Your task to perform on an android device: visit the assistant section in the google photos Image 0: 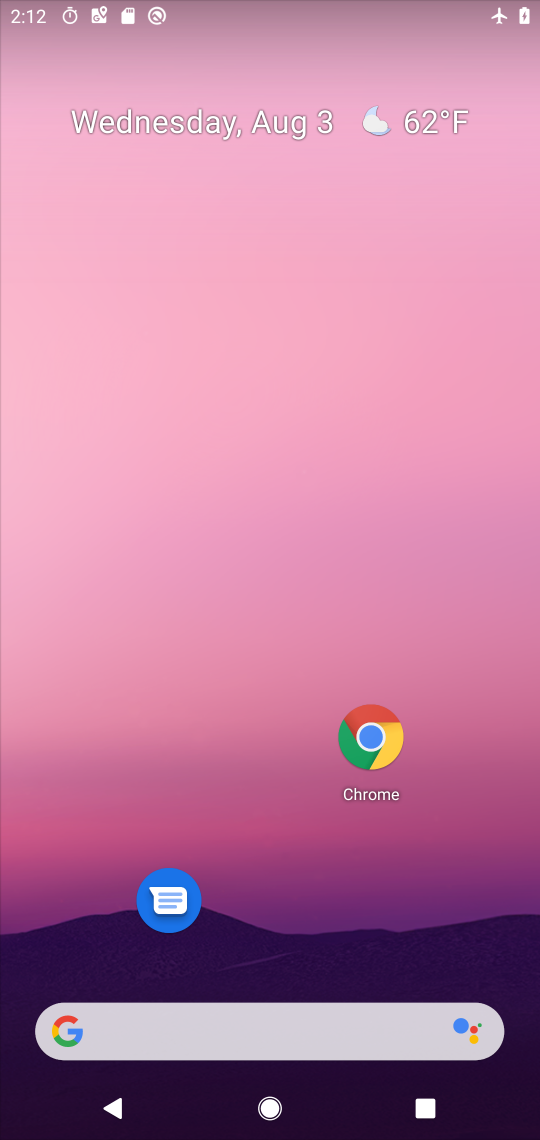
Step 0: drag from (268, 758) to (289, 90)
Your task to perform on an android device: visit the assistant section in the google photos Image 1: 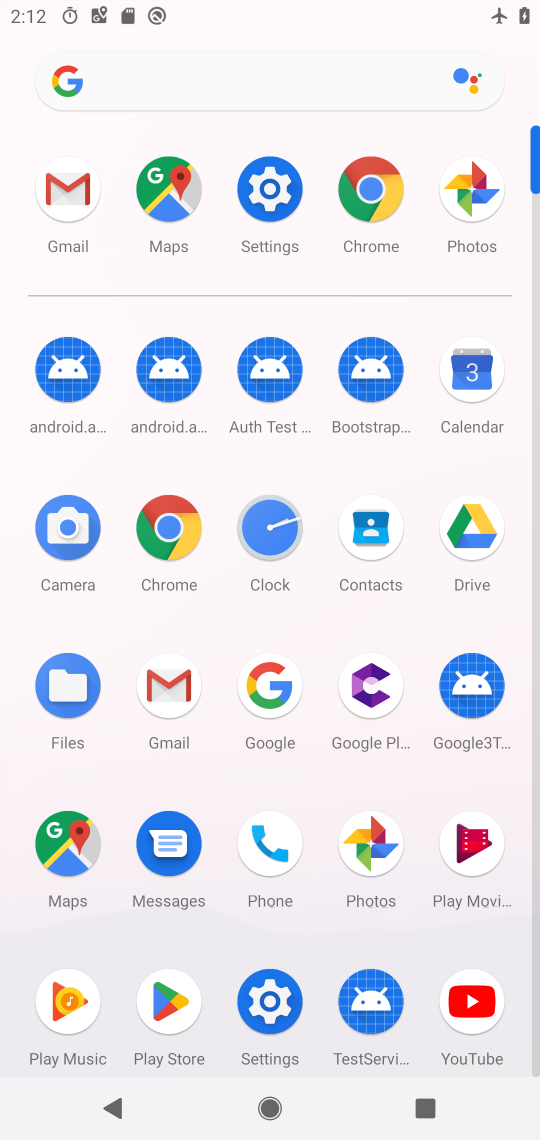
Step 1: click (481, 185)
Your task to perform on an android device: visit the assistant section in the google photos Image 2: 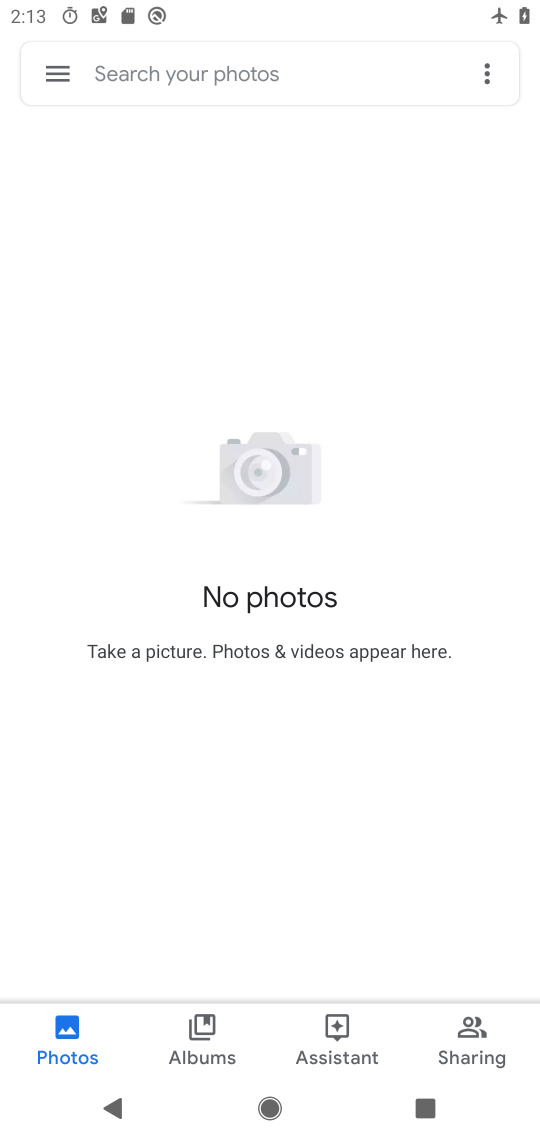
Step 2: click (331, 1041)
Your task to perform on an android device: visit the assistant section in the google photos Image 3: 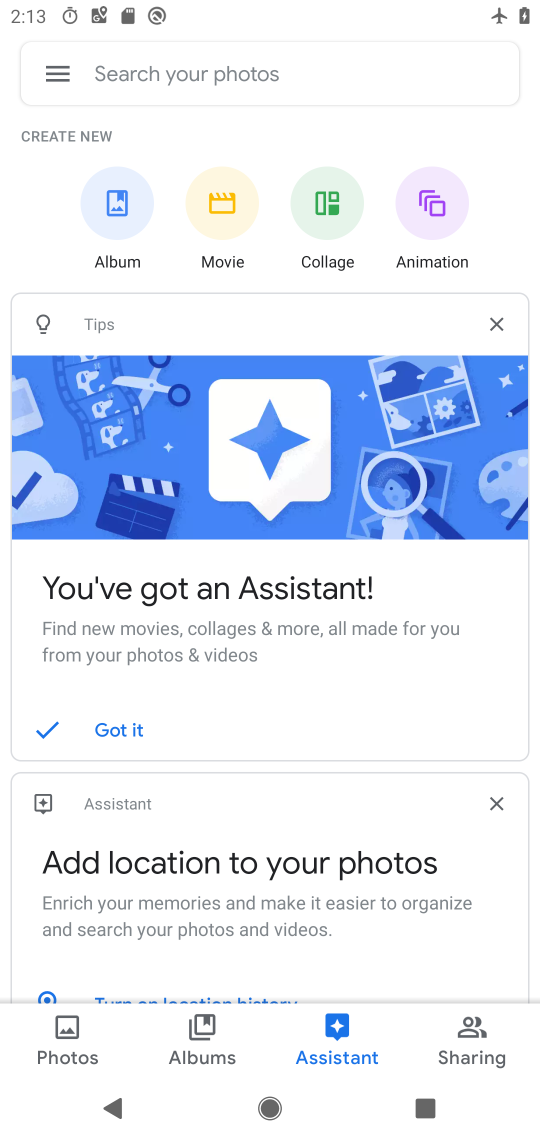
Step 3: task complete